Your task to perform on an android device: Open Google Chrome and open the bookmarks view Image 0: 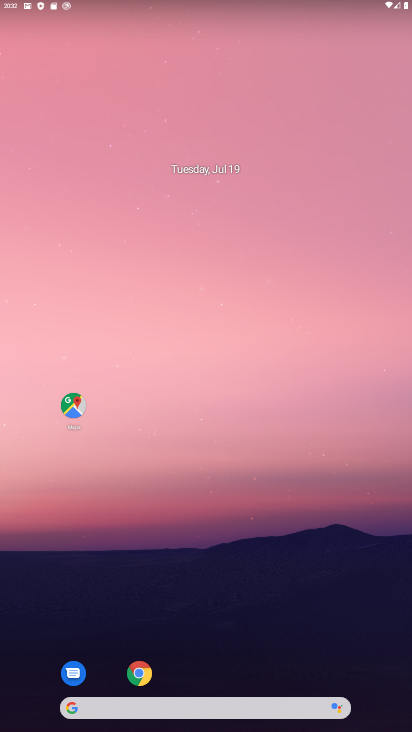
Step 0: click (134, 675)
Your task to perform on an android device: Open Google Chrome and open the bookmarks view Image 1: 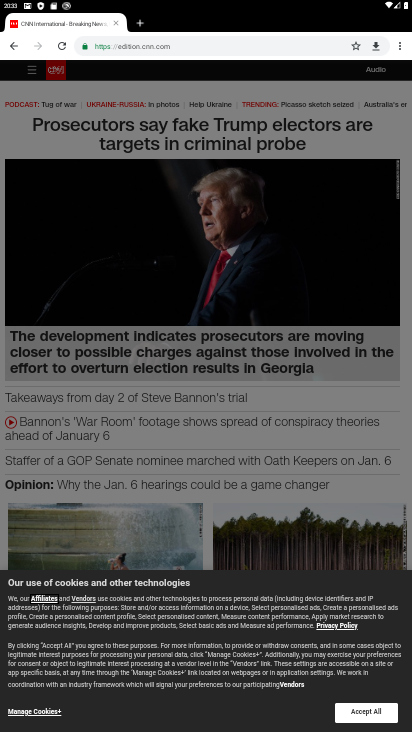
Step 1: click (397, 49)
Your task to perform on an android device: Open Google Chrome and open the bookmarks view Image 2: 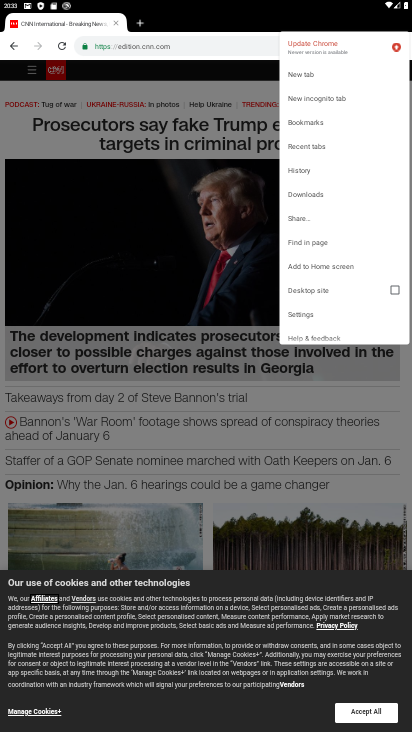
Step 2: click (304, 117)
Your task to perform on an android device: Open Google Chrome and open the bookmarks view Image 3: 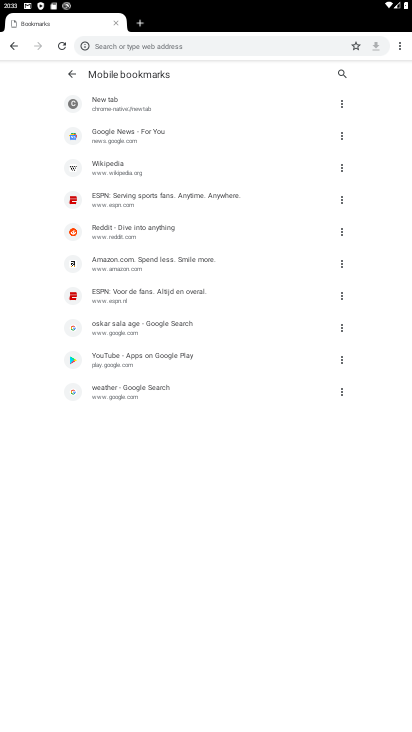
Step 3: task complete